Your task to perform on an android device: Open Chrome and go to settings Image 0: 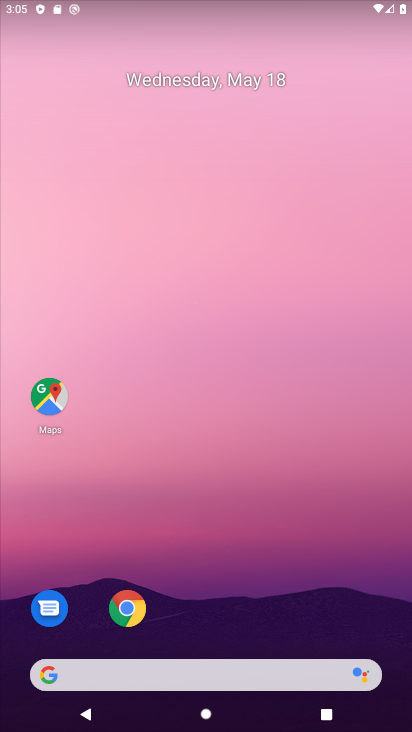
Step 0: click (130, 602)
Your task to perform on an android device: Open Chrome and go to settings Image 1: 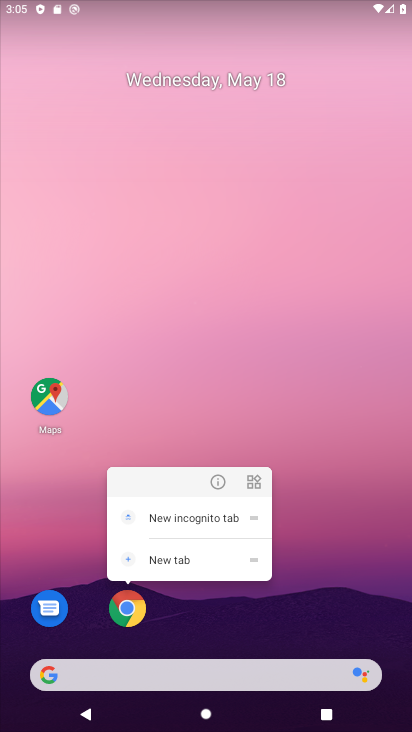
Step 1: click (130, 605)
Your task to perform on an android device: Open Chrome and go to settings Image 2: 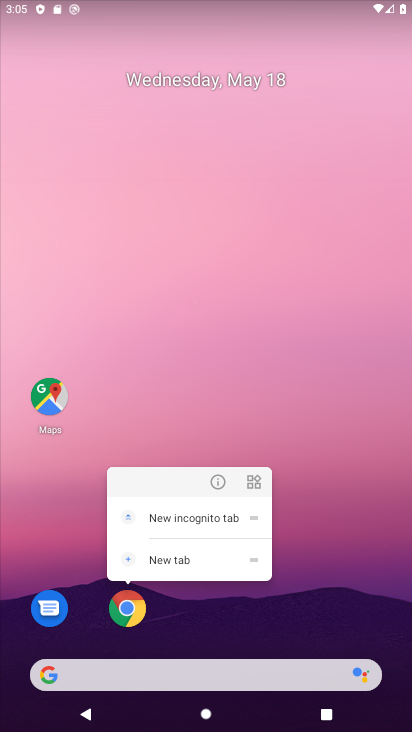
Step 2: click (130, 611)
Your task to perform on an android device: Open Chrome and go to settings Image 3: 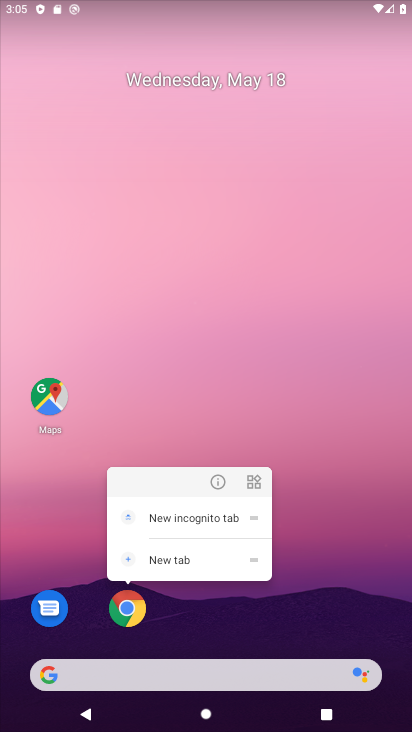
Step 3: click (130, 611)
Your task to perform on an android device: Open Chrome and go to settings Image 4: 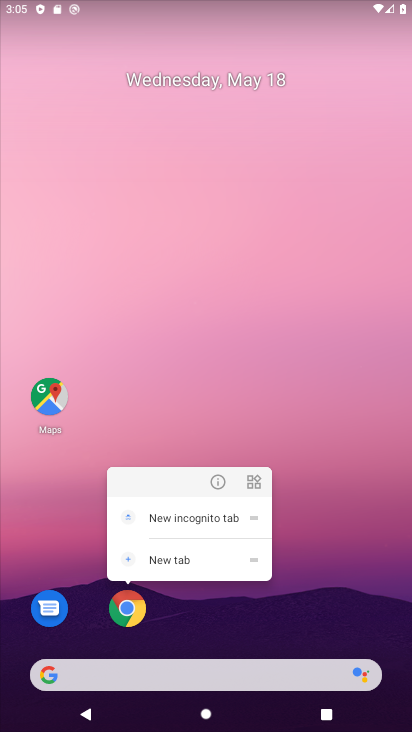
Step 4: click (110, 601)
Your task to perform on an android device: Open Chrome and go to settings Image 5: 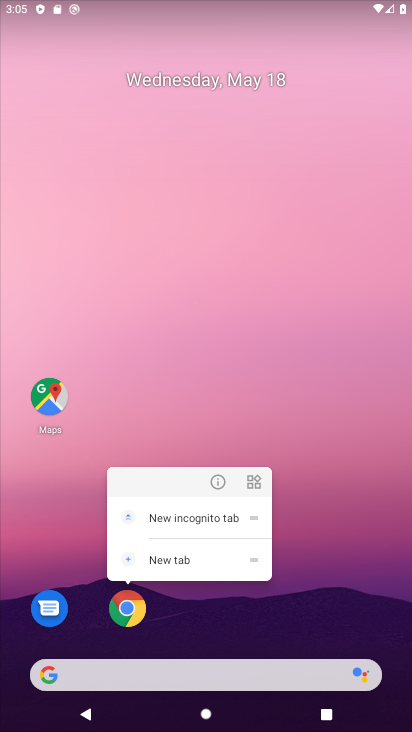
Step 5: click (133, 614)
Your task to perform on an android device: Open Chrome and go to settings Image 6: 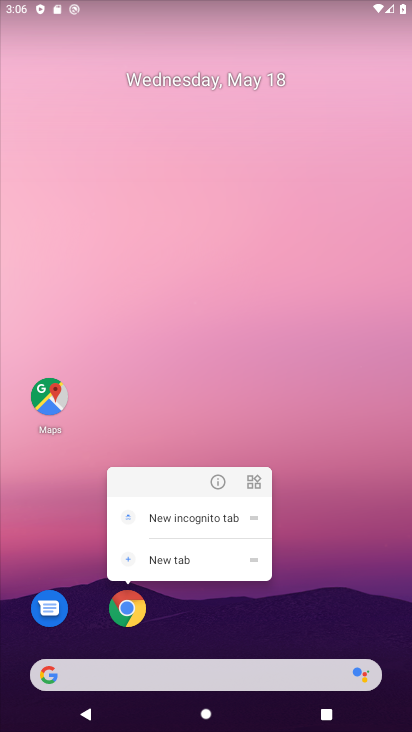
Step 6: click (127, 610)
Your task to perform on an android device: Open Chrome and go to settings Image 7: 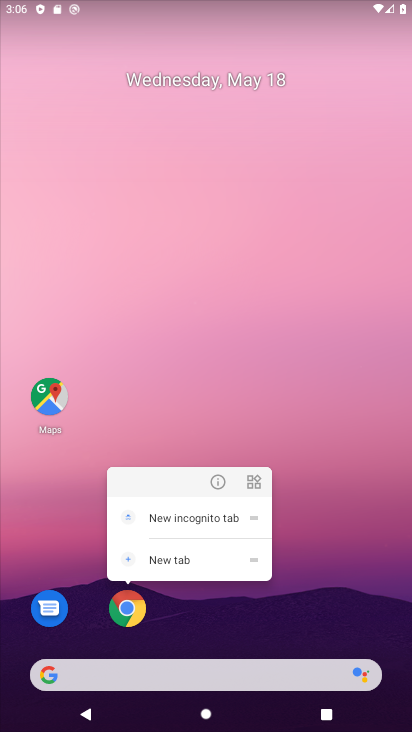
Step 7: drag from (235, 663) to (231, 310)
Your task to perform on an android device: Open Chrome and go to settings Image 8: 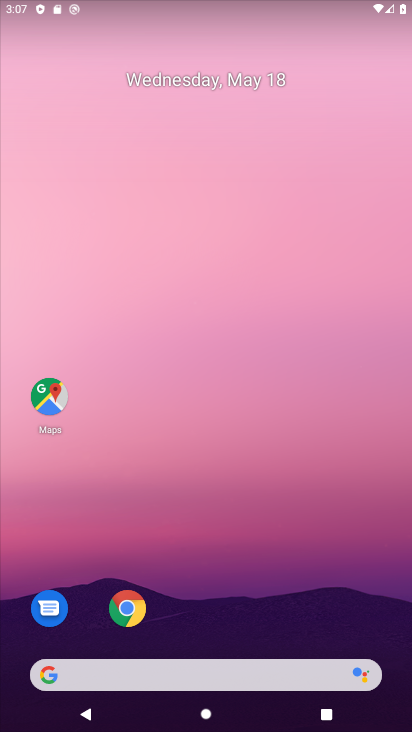
Step 8: drag from (187, 656) to (187, 135)
Your task to perform on an android device: Open Chrome and go to settings Image 9: 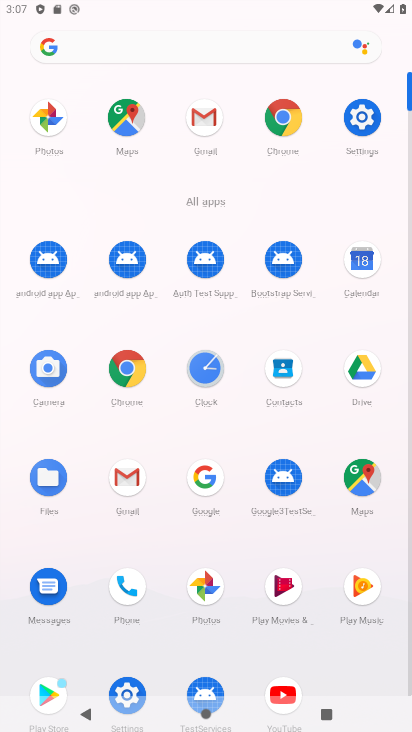
Step 9: click (288, 119)
Your task to perform on an android device: Open Chrome and go to settings Image 10: 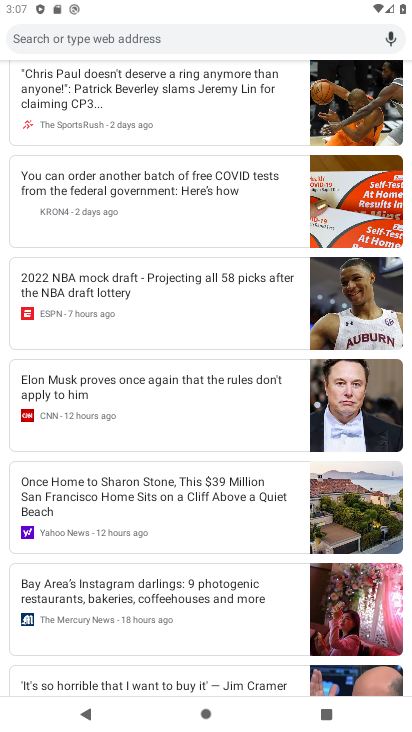
Step 10: drag from (59, 101) to (96, 601)
Your task to perform on an android device: Open Chrome and go to settings Image 11: 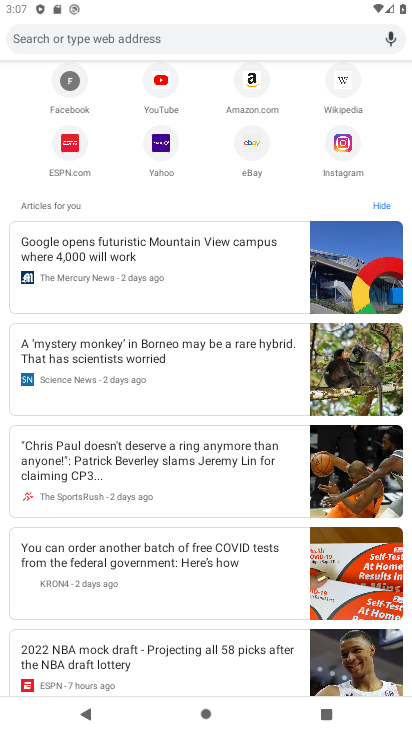
Step 11: drag from (262, 81) to (317, 542)
Your task to perform on an android device: Open Chrome and go to settings Image 12: 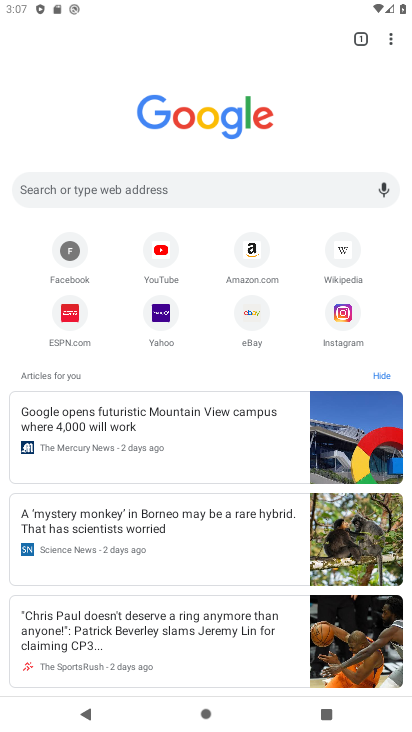
Step 12: click (385, 34)
Your task to perform on an android device: Open Chrome and go to settings Image 13: 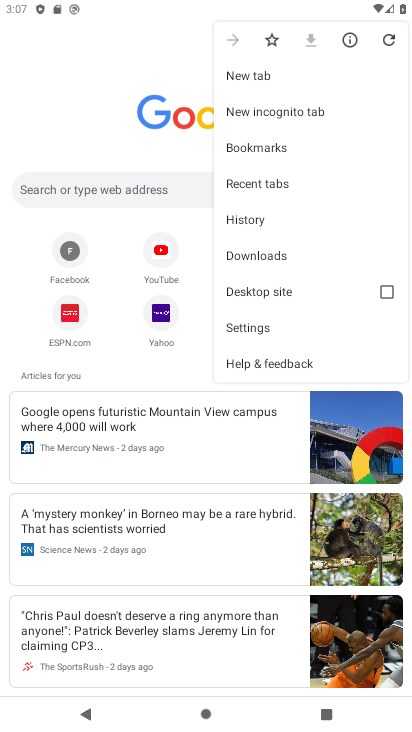
Step 13: click (227, 332)
Your task to perform on an android device: Open Chrome and go to settings Image 14: 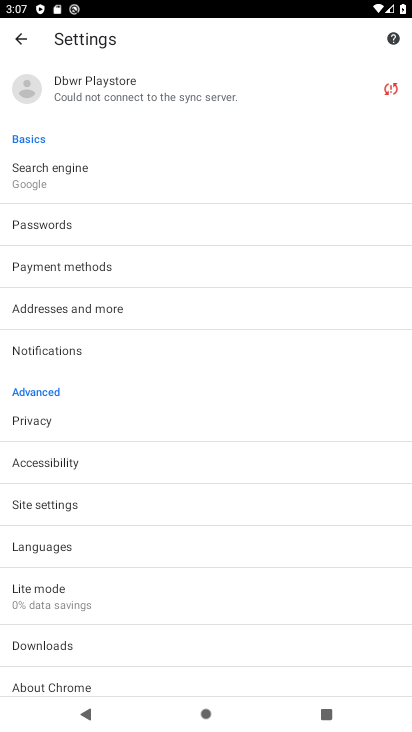
Step 14: task complete